Your task to perform on an android device: Open internet settings Image 0: 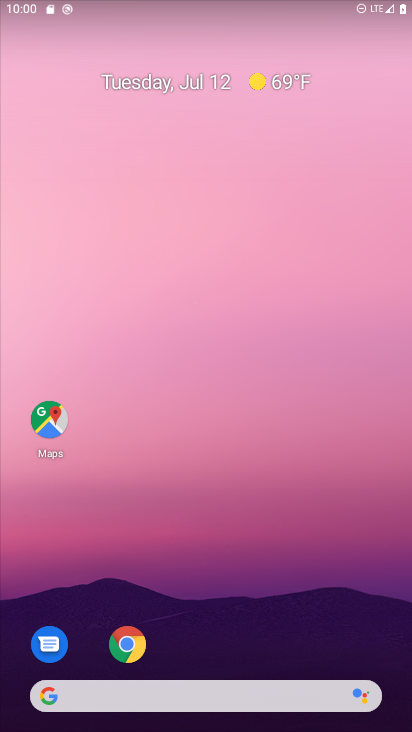
Step 0: press home button
Your task to perform on an android device: Open internet settings Image 1: 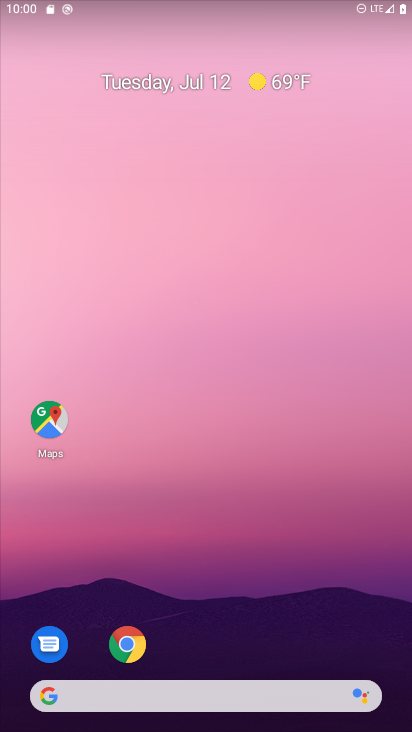
Step 1: drag from (214, 659) to (209, 185)
Your task to perform on an android device: Open internet settings Image 2: 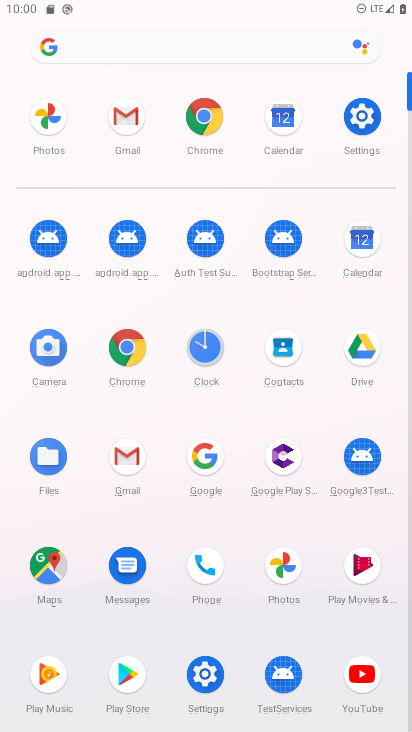
Step 2: click (364, 113)
Your task to perform on an android device: Open internet settings Image 3: 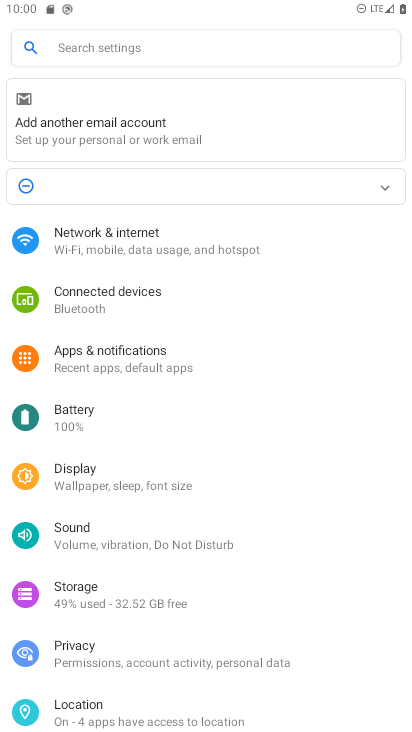
Step 3: click (162, 224)
Your task to perform on an android device: Open internet settings Image 4: 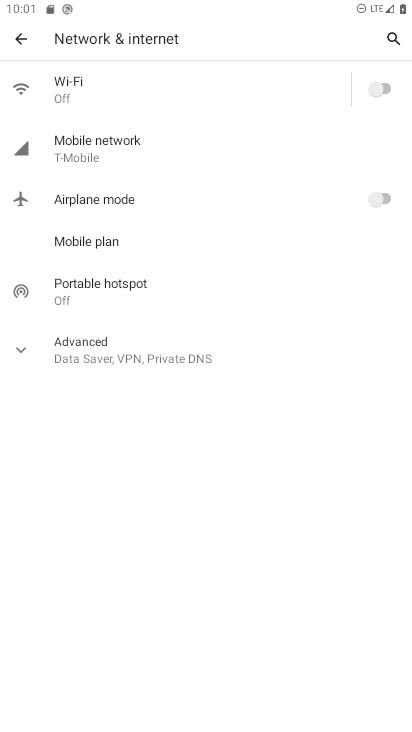
Step 4: click (22, 345)
Your task to perform on an android device: Open internet settings Image 5: 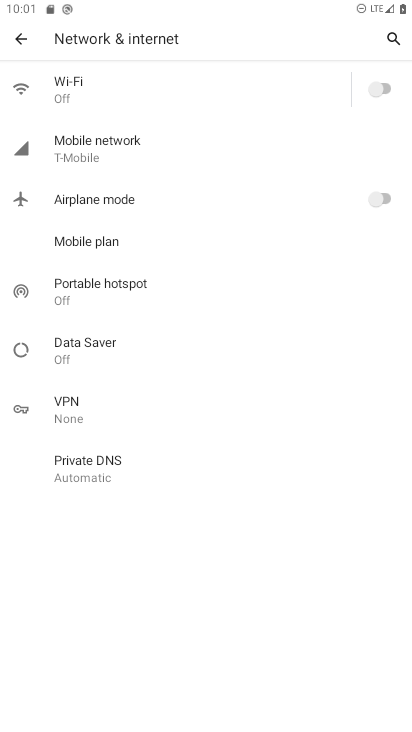
Step 5: task complete